Your task to perform on an android device: What's the weather going to be tomorrow? Image 0: 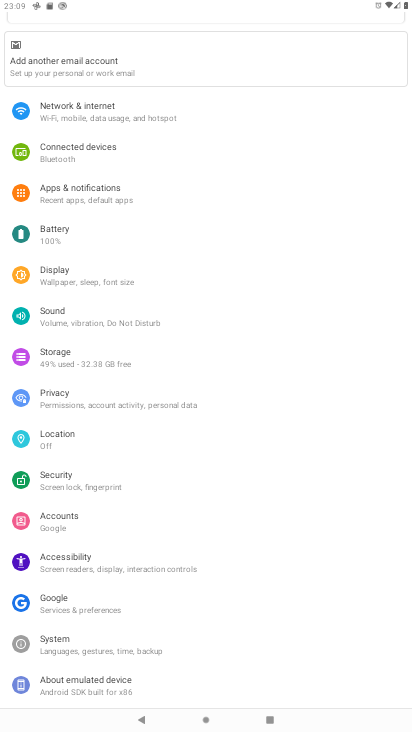
Step 0: press home button
Your task to perform on an android device: What's the weather going to be tomorrow? Image 1: 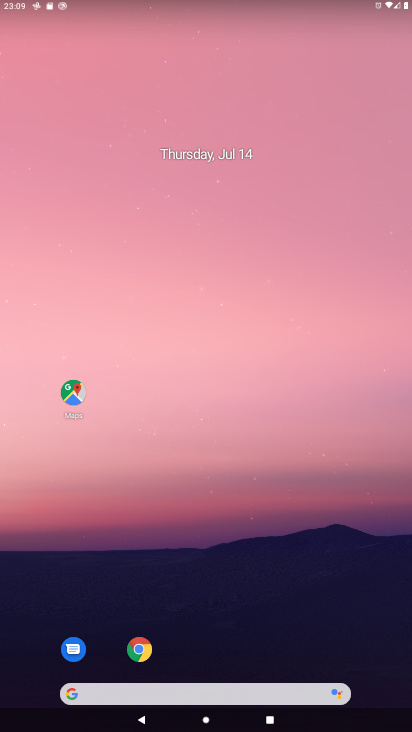
Step 1: click (261, 701)
Your task to perform on an android device: What's the weather going to be tomorrow? Image 2: 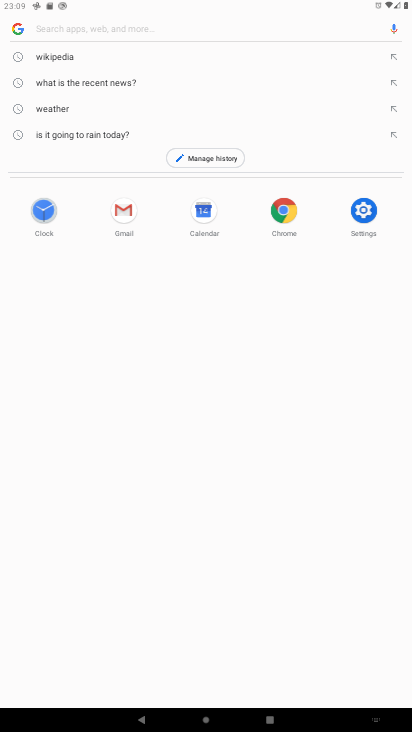
Step 2: click (219, 32)
Your task to perform on an android device: What's the weather going to be tomorrow? Image 3: 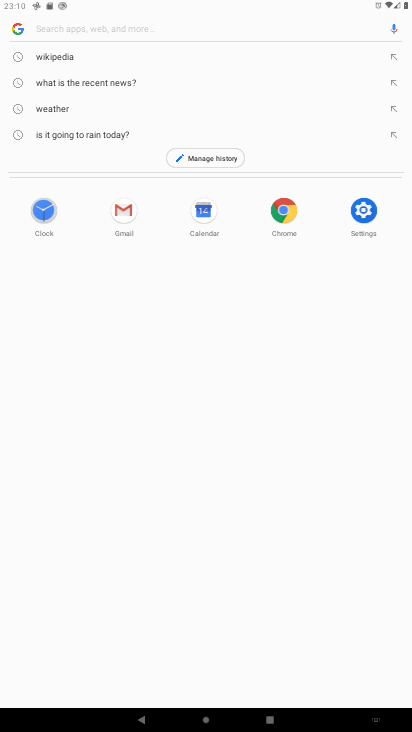
Step 3: type "What's the weather going to be tomorrow?"
Your task to perform on an android device: What's the weather going to be tomorrow? Image 4: 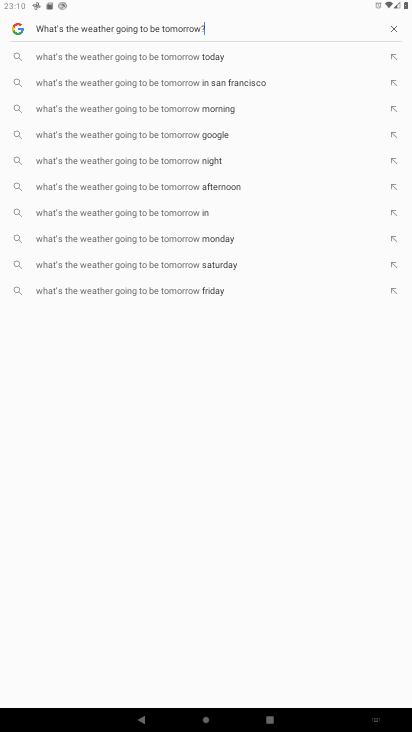
Step 4: task complete